Your task to perform on an android device: toggle notification dots Image 0: 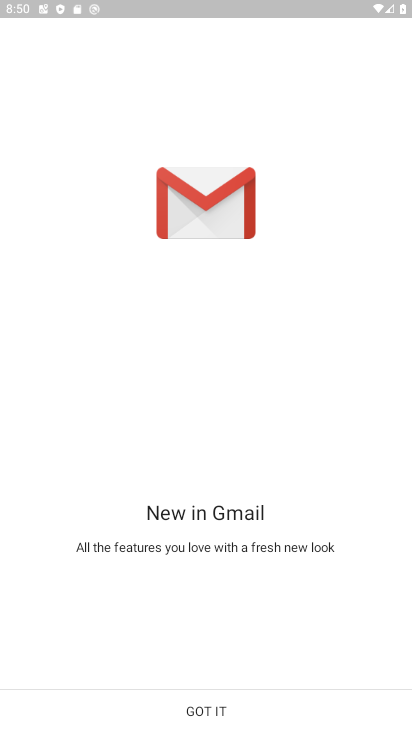
Step 0: press home button
Your task to perform on an android device: toggle notification dots Image 1: 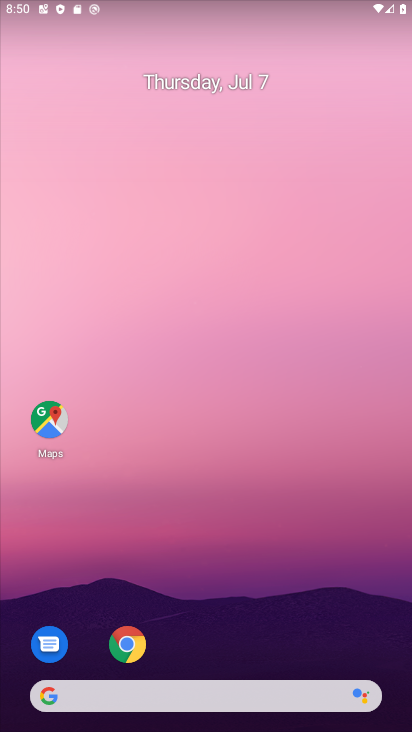
Step 1: drag from (218, 675) to (250, 178)
Your task to perform on an android device: toggle notification dots Image 2: 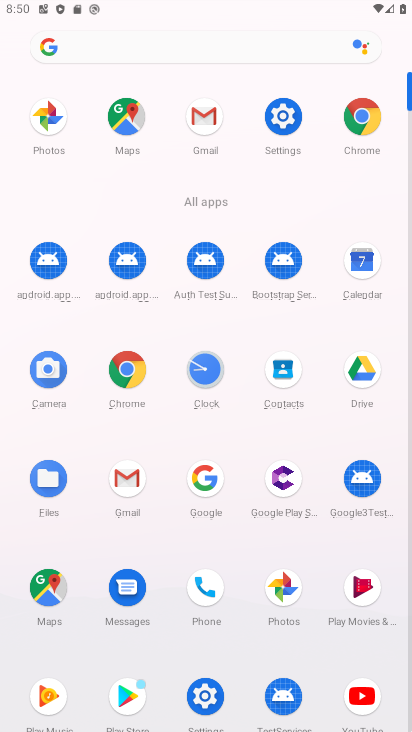
Step 2: click (206, 683)
Your task to perform on an android device: toggle notification dots Image 3: 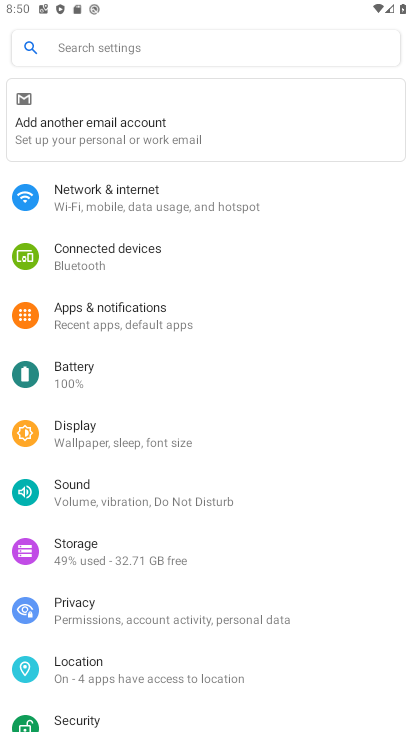
Step 3: click (134, 309)
Your task to perform on an android device: toggle notification dots Image 4: 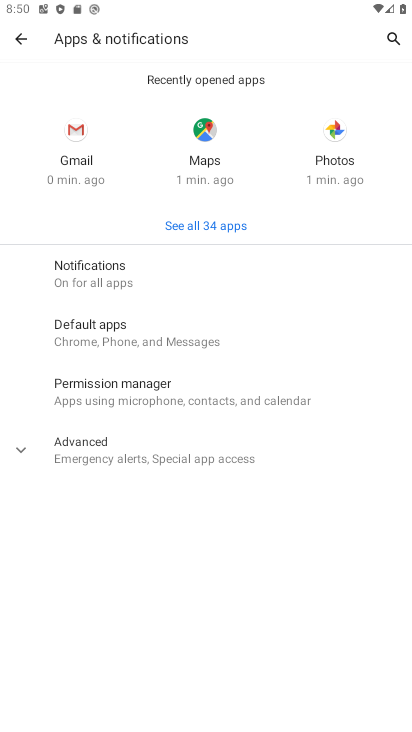
Step 4: click (167, 284)
Your task to perform on an android device: toggle notification dots Image 5: 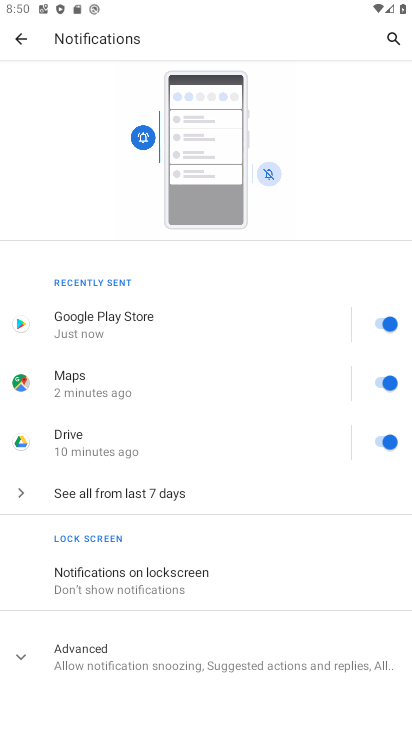
Step 5: click (106, 661)
Your task to perform on an android device: toggle notification dots Image 6: 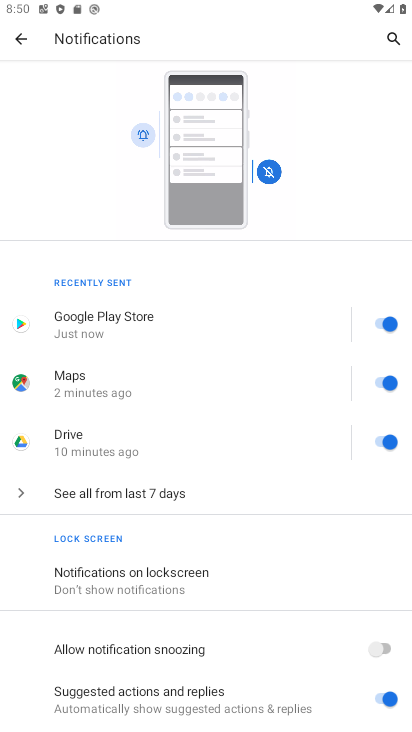
Step 6: drag from (175, 706) to (171, 398)
Your task to perform on an android device: toggle notification dots Image 7: 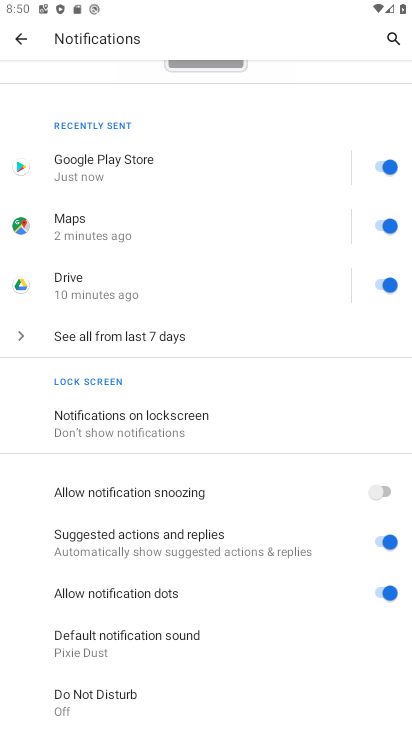
Step 7: click (380, 587)
Your task to perform on an android device: toggle notification dots Image 8: 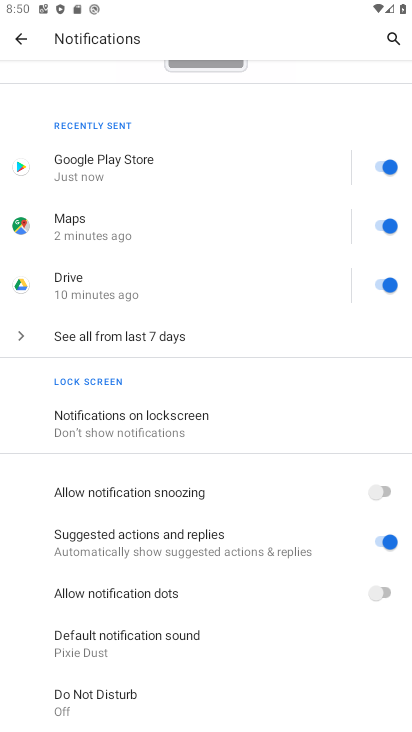
Step 8: task complete